Your task to perform on an android device: What's the weather today? Image 0: 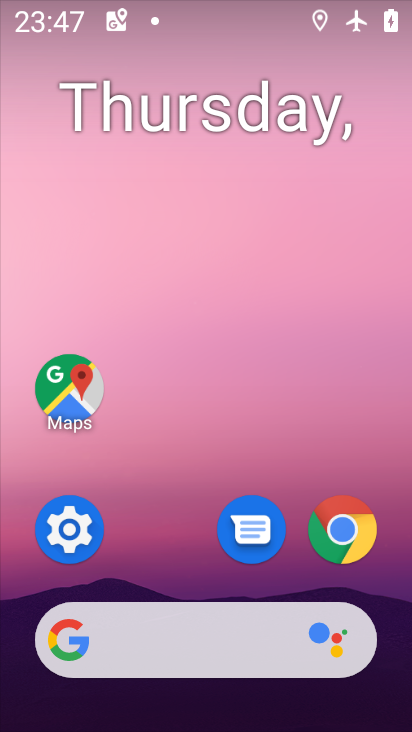
Step 0: click (164, 649)
Your task to perform on an android device: What's the weather today? Image 1: 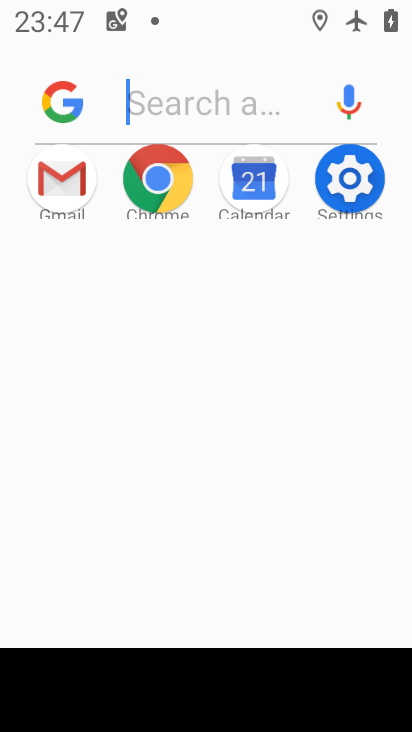
Step 1: type "weather today"
Your task to perform on an android device: What's the weather today? Image 2: 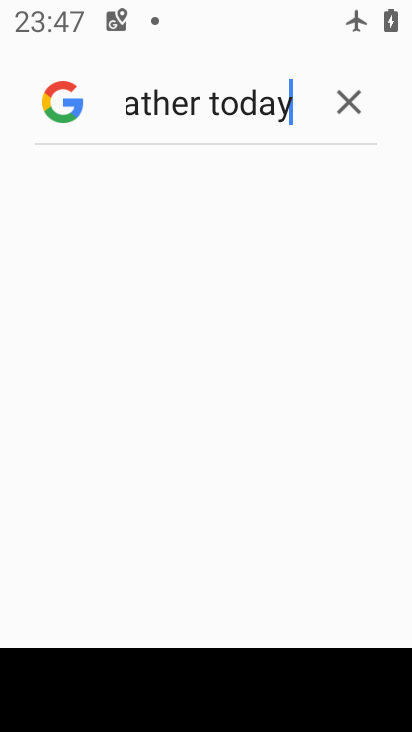
Step 2: task complete